Your task to perform on an android device: all mails in gmail Image 0: 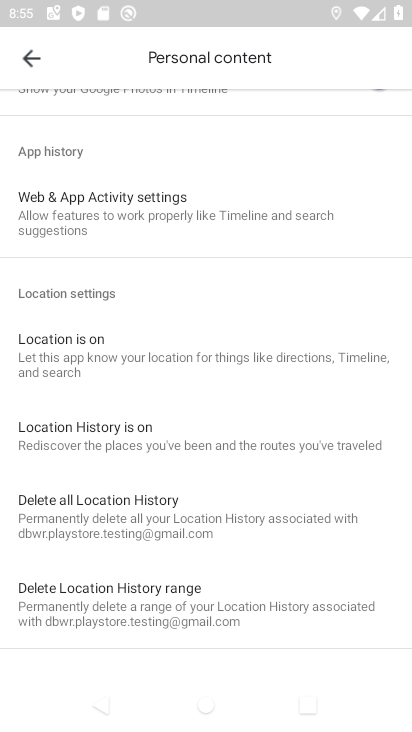
Step 0: press home button
Your task to perform on an android device: all mails in gmail Image 1: 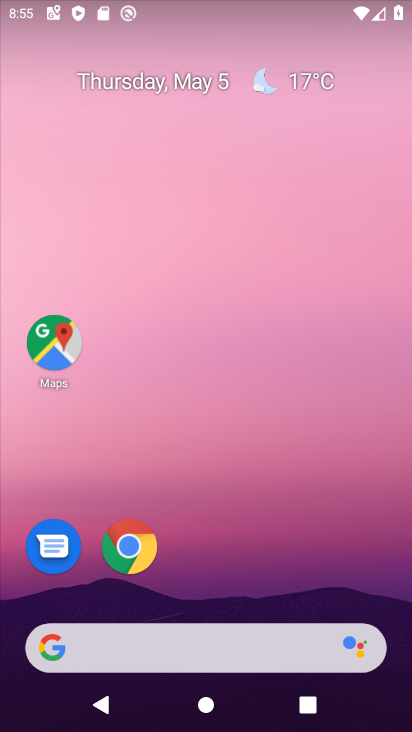
Step 1: drag from (174, 655) to (310, 116)
Your task to perform on an android device: all mails in gmail Image 2: 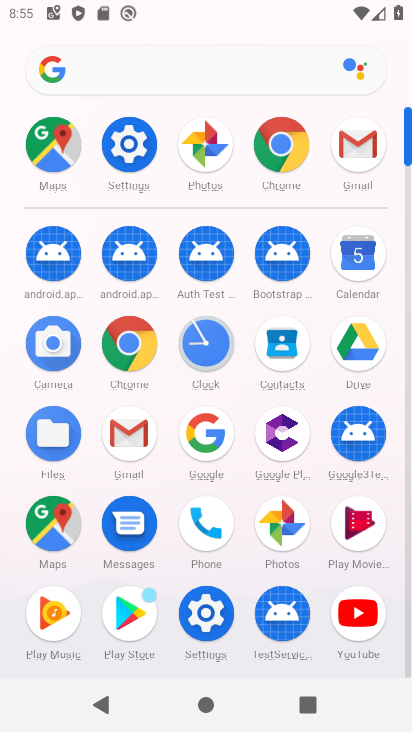
Step 2: click (356, 157)
Your task to perform on an android device: all mails in gmail Image 3: 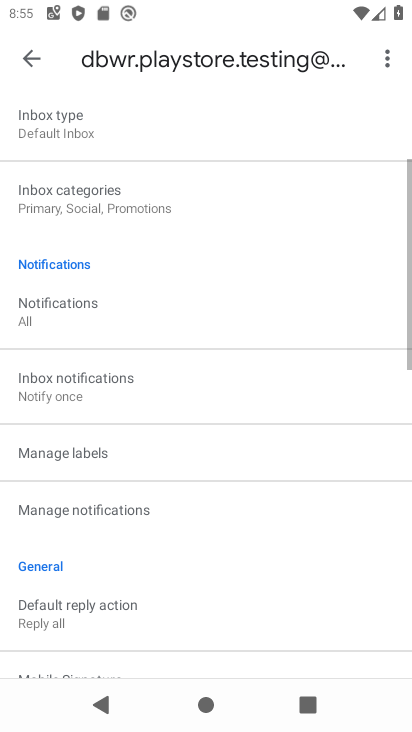
Step 3: click (31, 53)
Your task to perform on an android device: all mails in gmail Image 4: 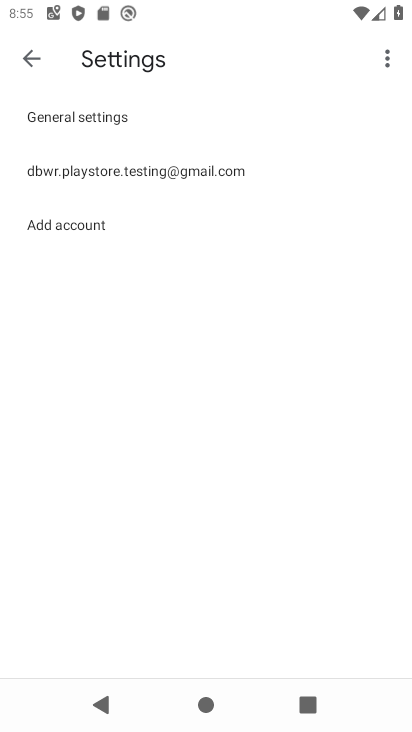
Step 4: click (31, 53)
Your task to perform on an android device: all mails in gmail Image 5: 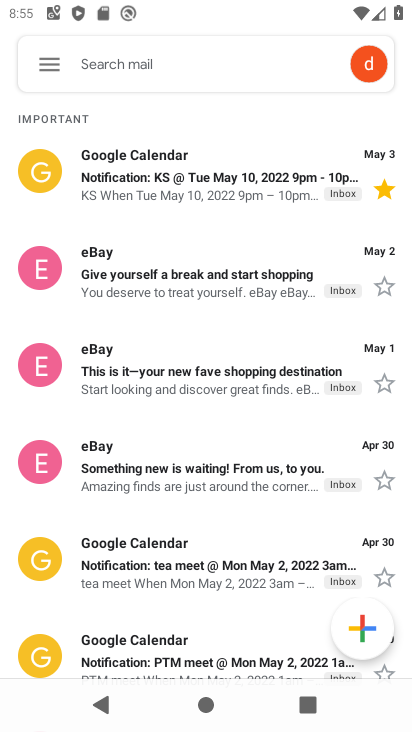
Step 5: click (42, 67)
Your task to perform on an android device: all mails in gmail Image 6: 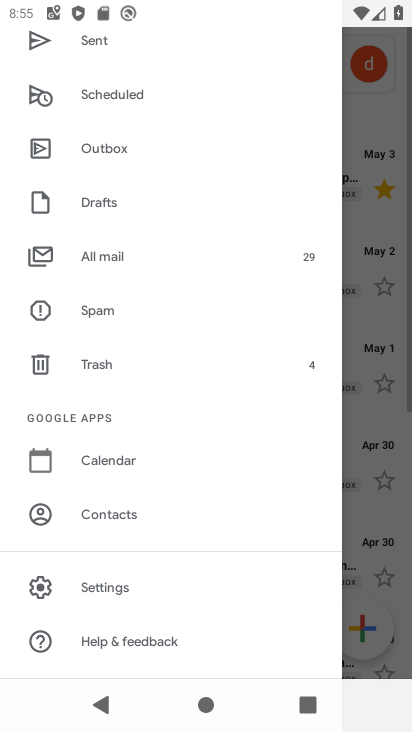
Step 6: click (123, 254)
Your task to perform on an android device: all mails in gmail Image 7: 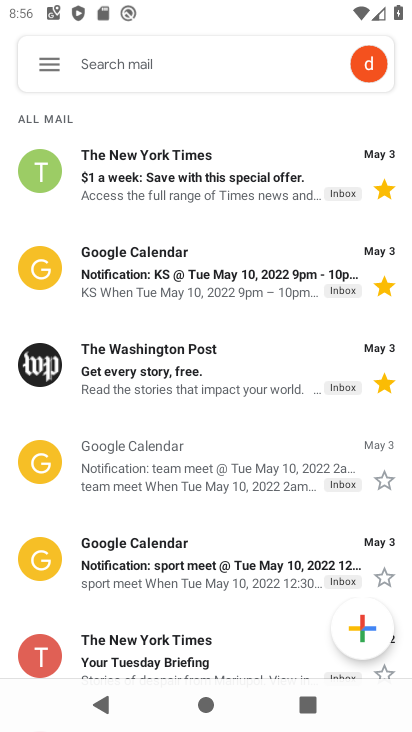
Step 7: task complete